Your task to perform on an android device: Is it going to rain tomorrow? Image 0: 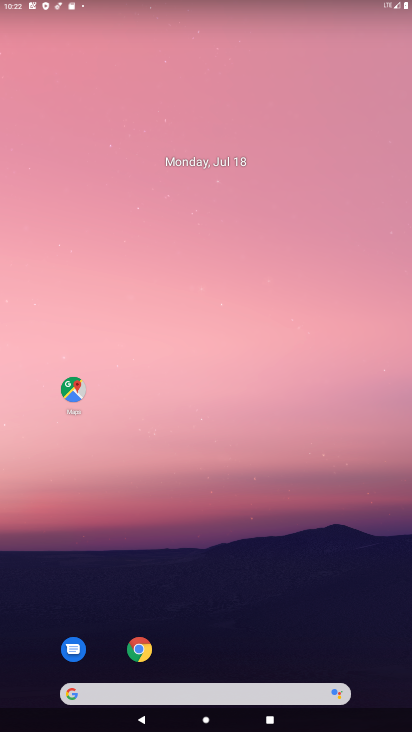
Step 0: click (261, 695)
Your task to perform on an android device: Is it going to rain tomorrow? Image 1: 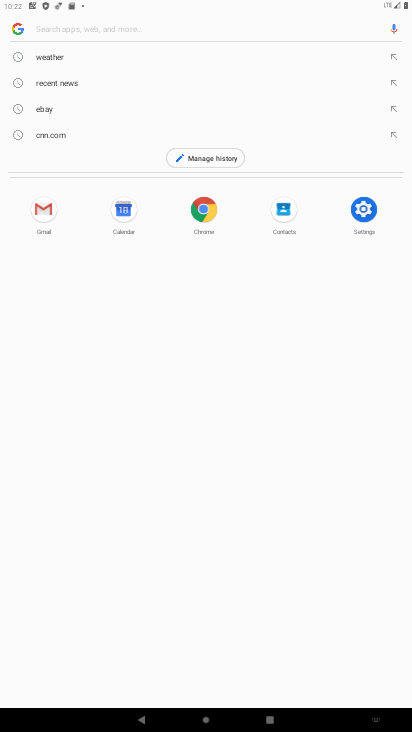
Step 1: type " Is it going to rain tomorrow?"
Your task to perform on an android device: Is it going to rain tomorrow? Image 2: 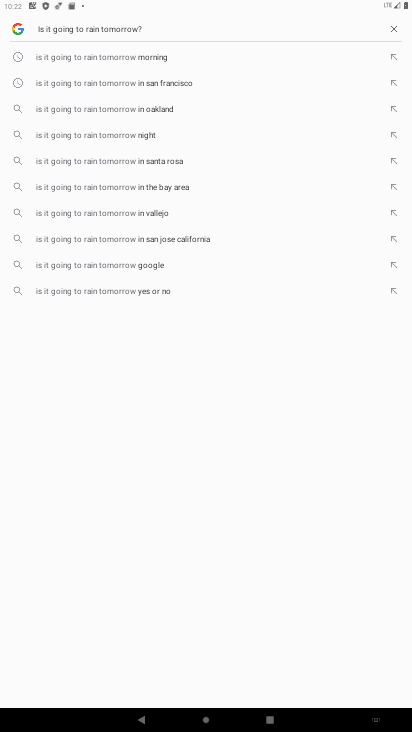
Step 2: press enter
Your task to perform on an android device: Is it going to rain tomorrow? Image 3: 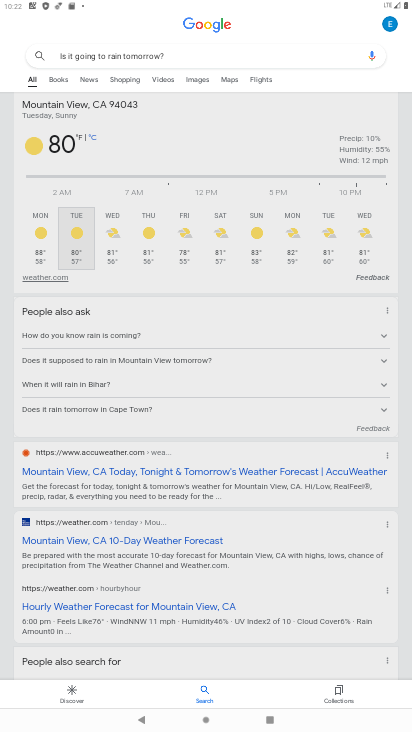
Step 3: task complete